Your task to perform on an android device: Go to Reddit.com Image 0: 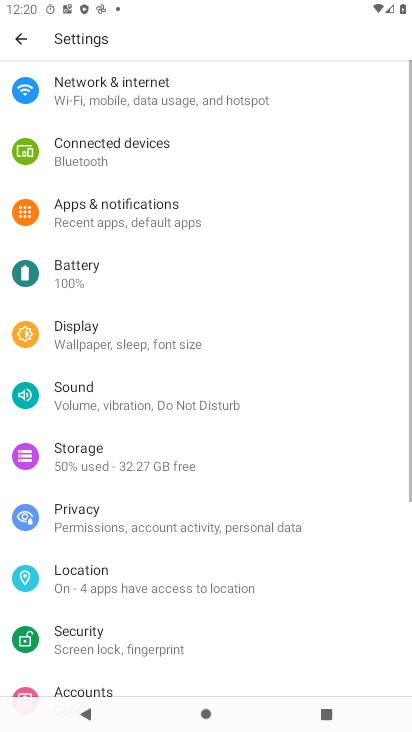
Step 0: press home button
Your task to perform on an android device: Go to Reddit.com Image 1: 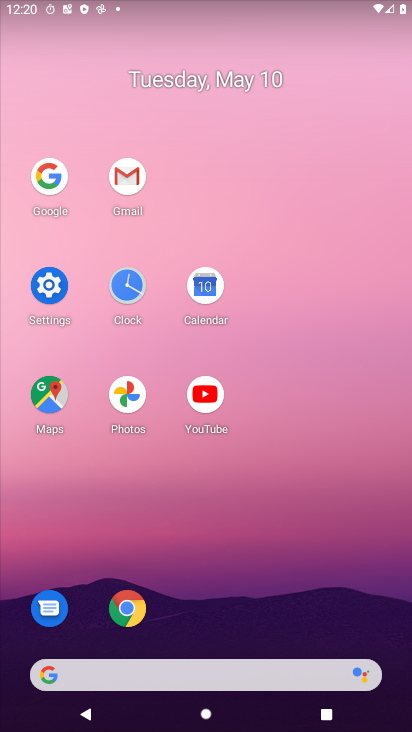
Step 1: click (119, 607)
Your task to perform on an android device: Go to Reddit.com Image 2: 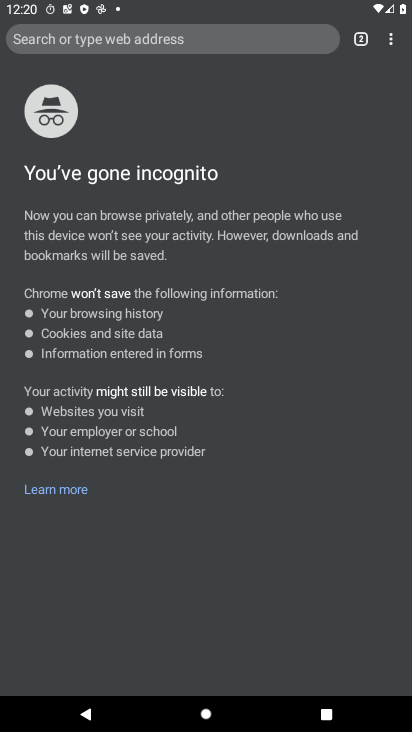
Step 2: click (398, 42)
Your task to perform on an android device: Go to Reddit.com Image 3: 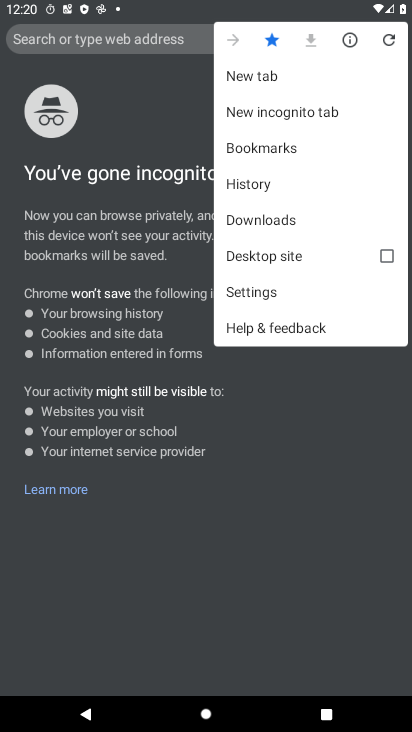
Step 3: click (295, 76)
Your task to perform on an android device: Go to Reddit.com Image 4: 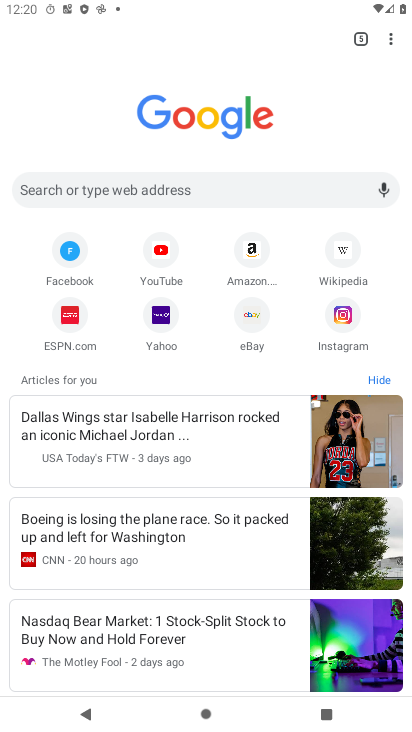
Step 4: click (188, 184)
Your task to perform on an android device: Go to Reddit.com Image 5: 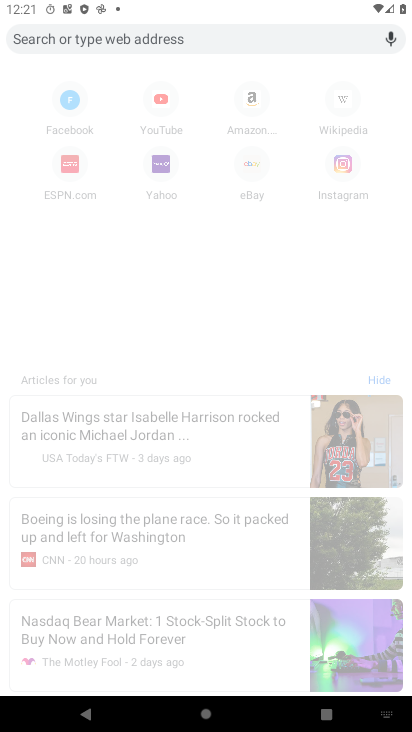
Step 5: type "reddit"
Your task to perform on an android device: Go to Reddit.com Image 6: 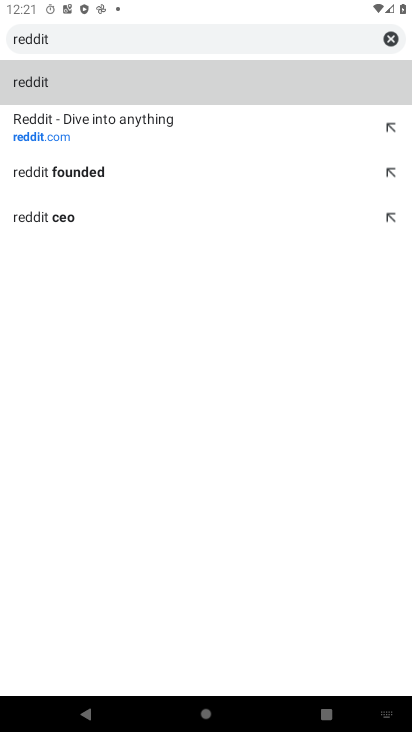
Step 6: click (31, 145)
Your task to perform on an android device: Go to Reddit.com Image 7: 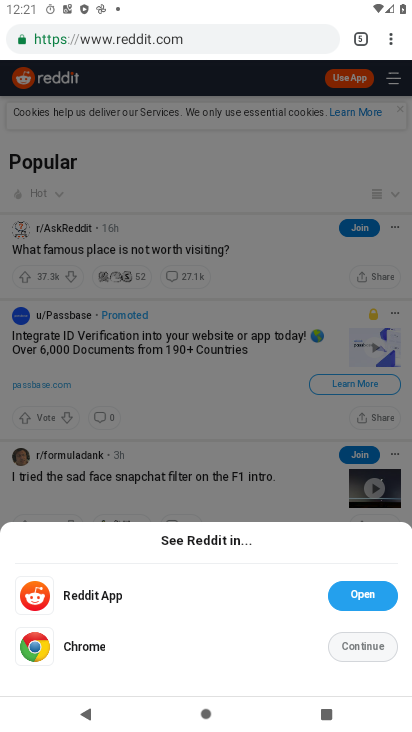
Step 7: task complete